Your task to perform on an android device: open a bookmark in the chrome app Image 0: 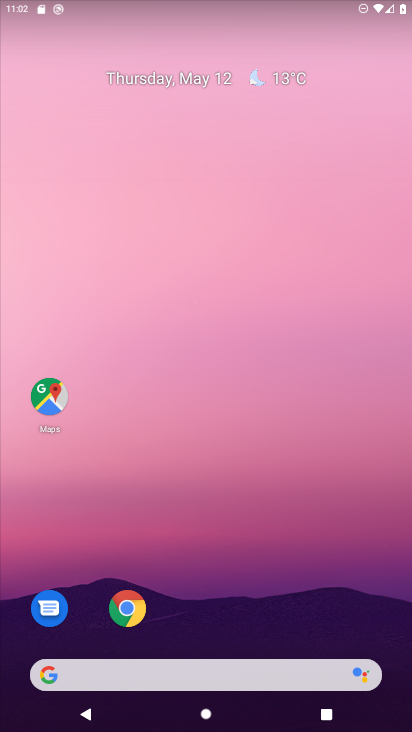
Step 0: click (129, 608)
Your task to perform on an android device: open a bookmark in the chrome app Image 1: 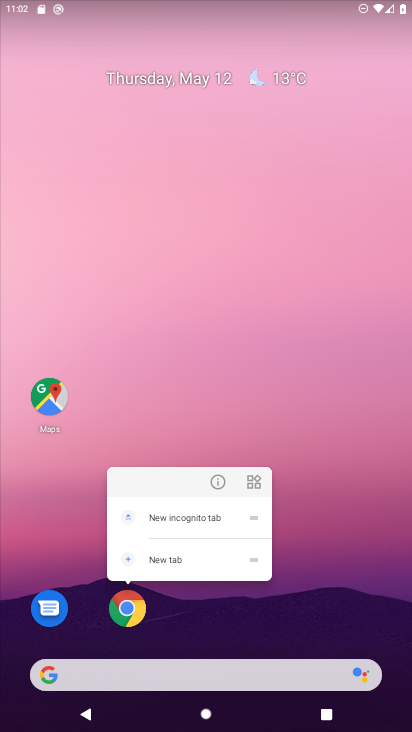
Step 1: click (129, 608)
Your task to perform on an android device: open a bookmark in the chrome app Image 2: 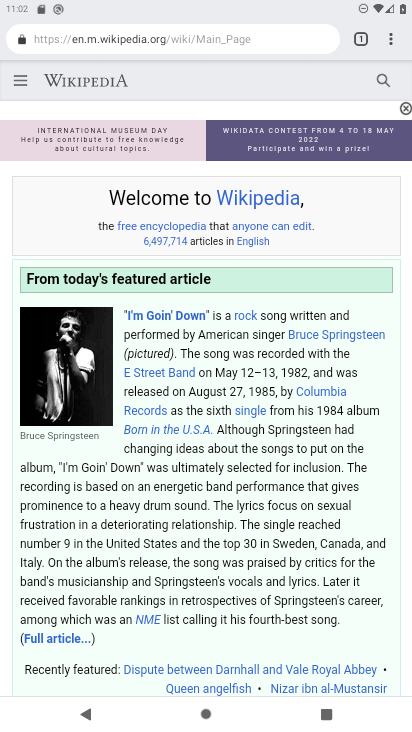
Step 2: click (384, 44)
Your task to perform on an android device: open a bookmark in the chrome app Image 3: 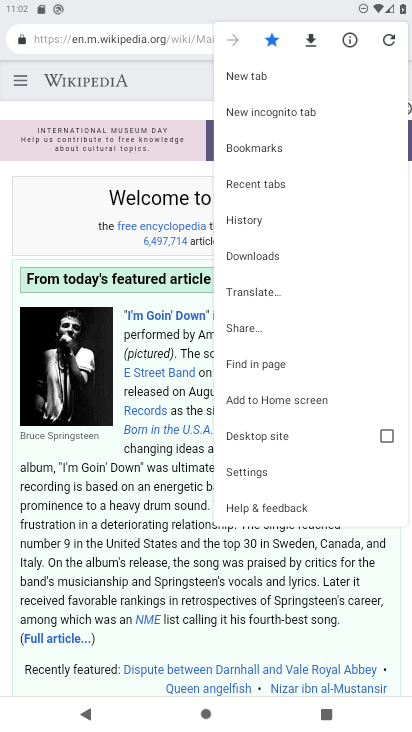
Step 3: click (267, 473)
Your task to perform on an android device: open a bookmark in the chrome app Image 4: 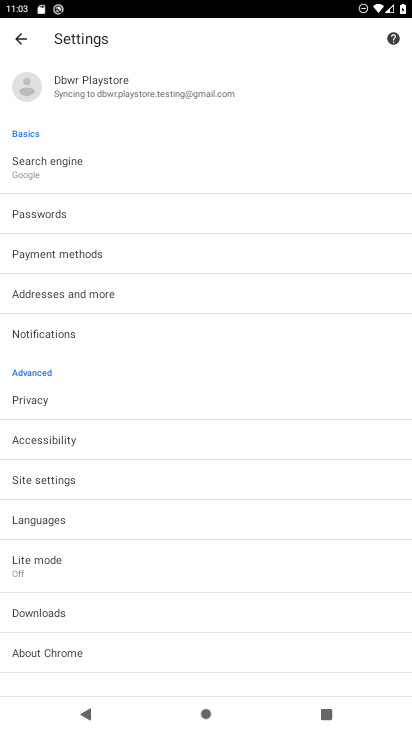
Step 4: task complete